Your task to perform on an android device: turn on wifi Image 0: 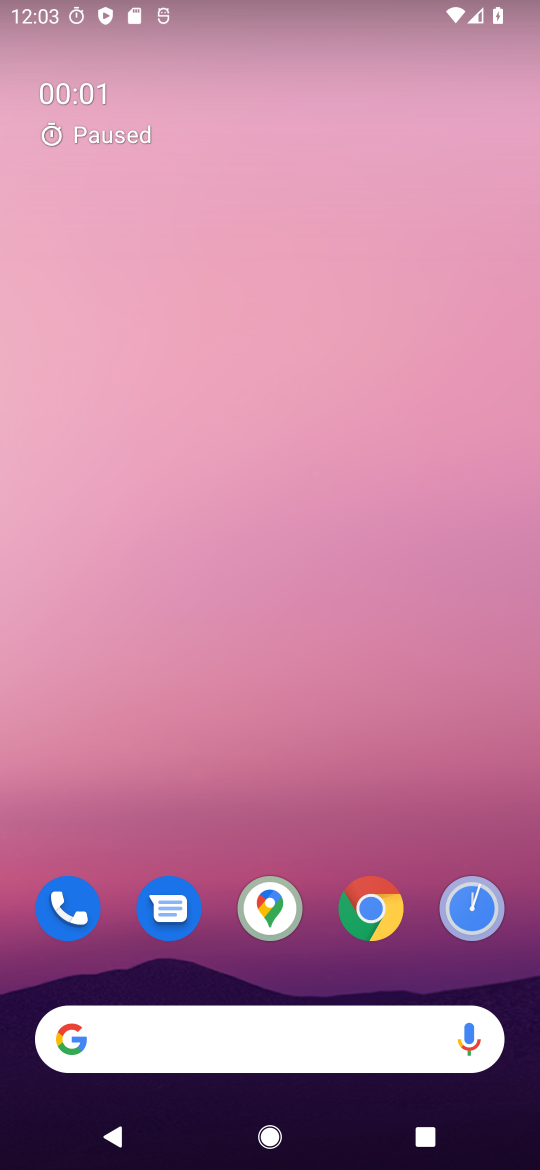
Step 0: click (475, 526)
Your task to perform on an android device: turn on wifi Image 1: 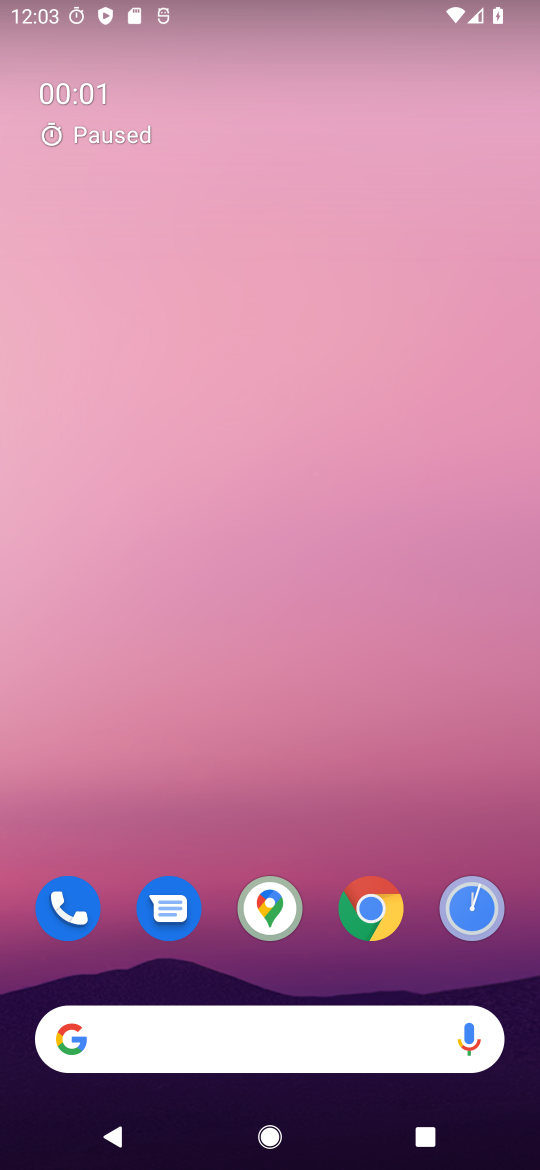
Step 1: drag from (333, 945) to (403, 97)
Your task to perform on an android device: turn on wifi Image 2: 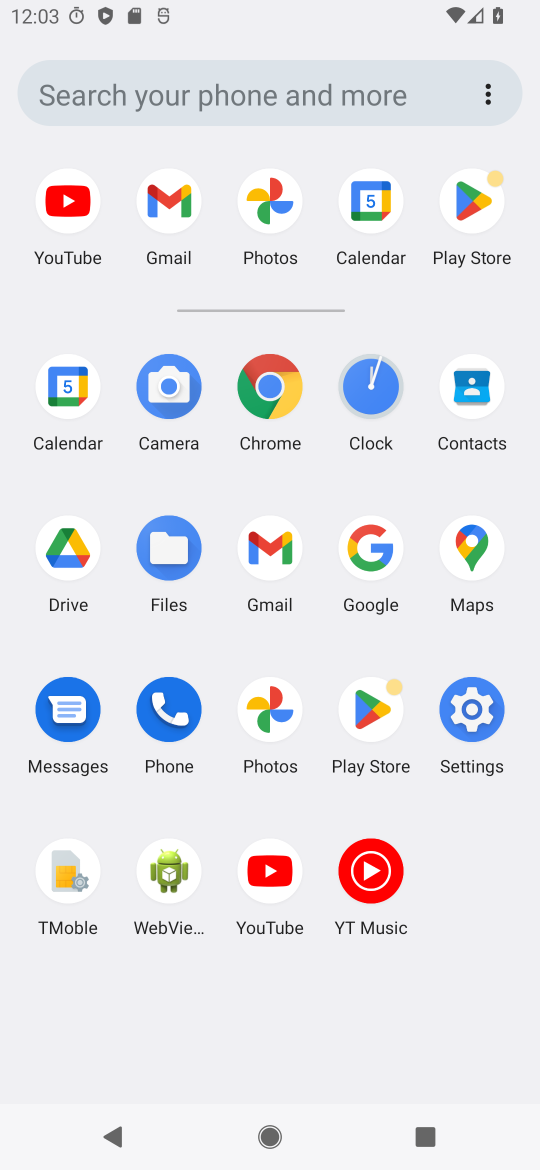
Step 2: click (446, 731)
Your task to perform on an android device: turn on wifi Image 3: 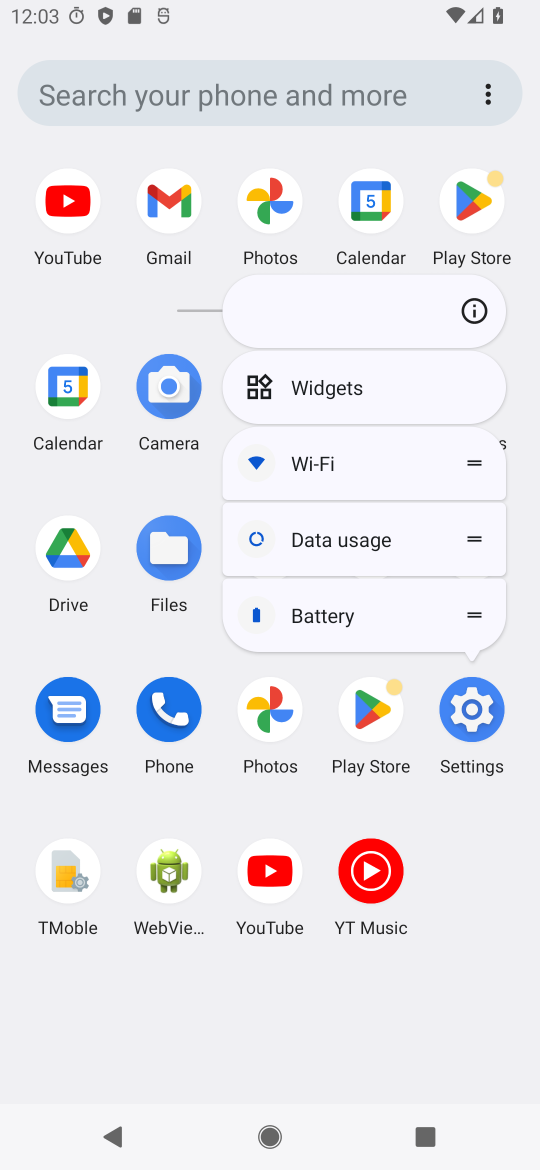
Step 3: click (458, 719)
Your task to perform on an android device: turn on wifi Image 4: 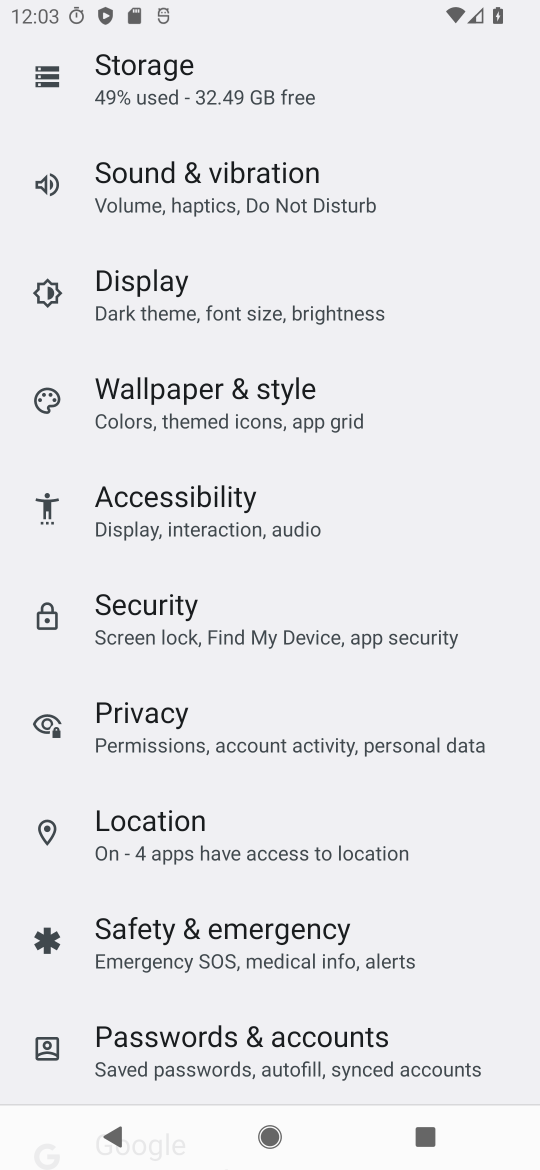
Step 4: drag from (300, 114) to (287, 782)
Your task to perform on an android device: turn on wifi Image 5: 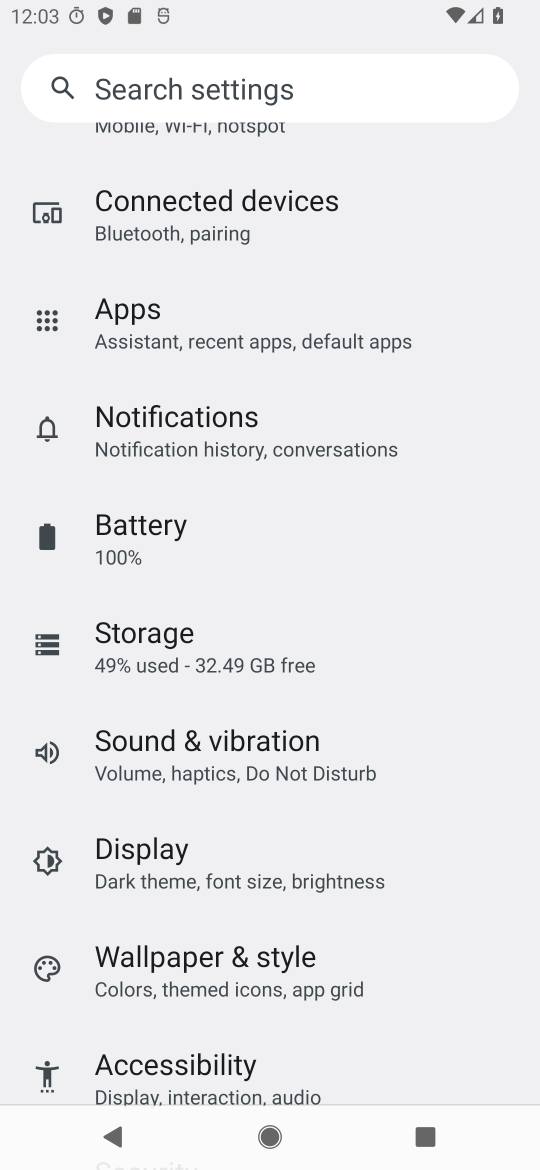
Step 5: drag from (422, 221) to (219, 907)
Your task to perform on an android device: turn on wifi Image 6: 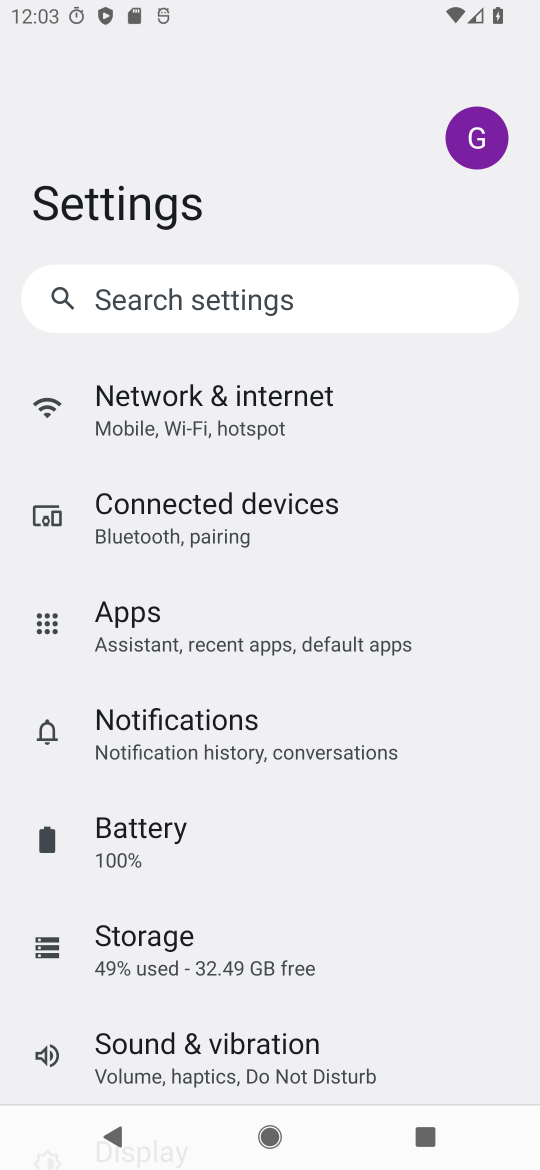
Step 6: click (144, 402)
Your task to perform on an android device: turn on wifi Image 7: 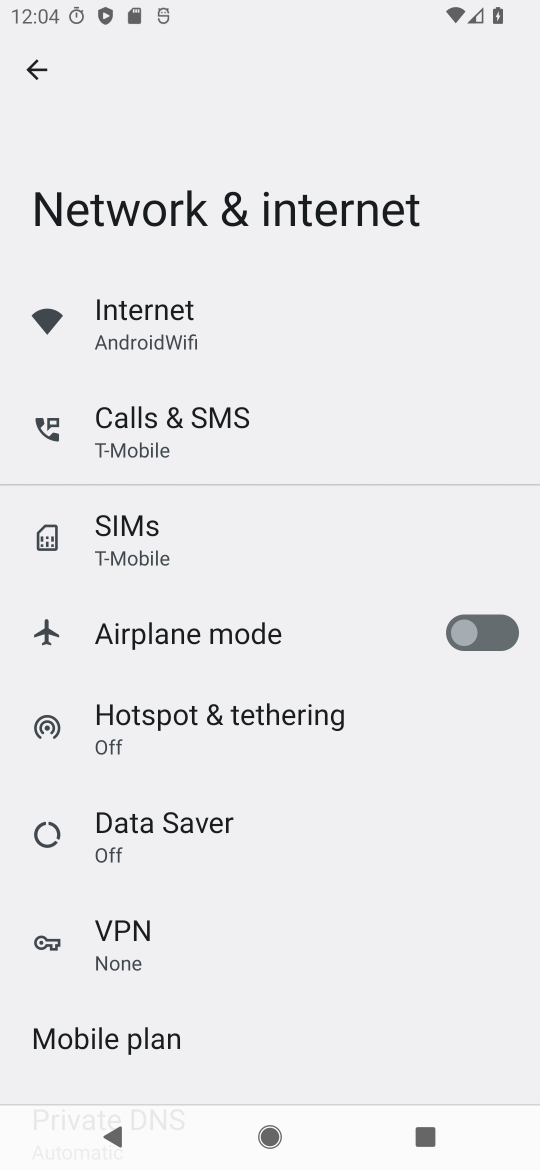
Step 7: click (154, 321)
Your task to perform on an android device: turn on wifi Image 8: 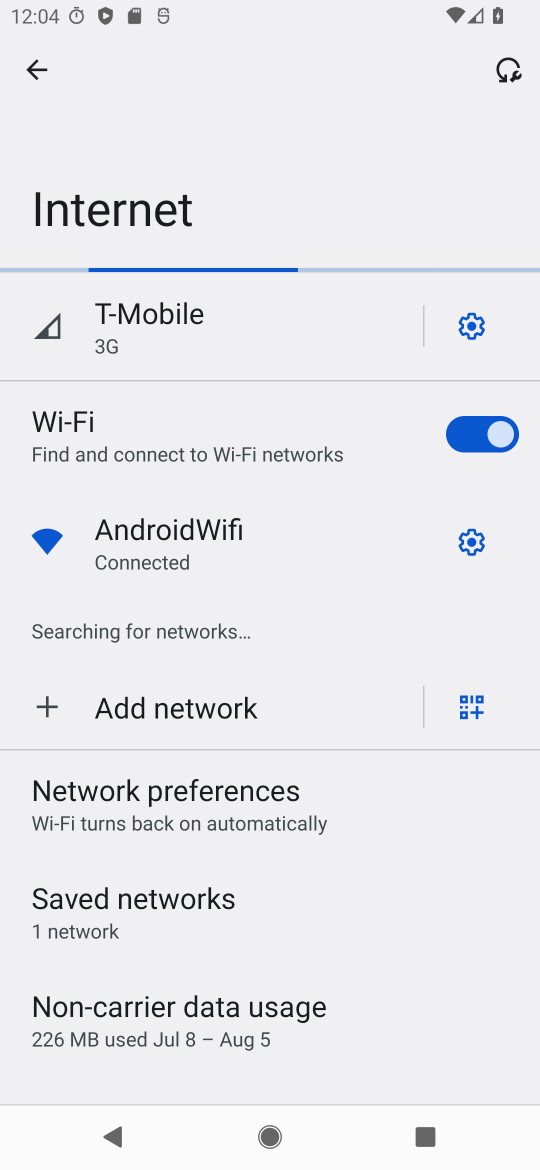
Step 8: click (470, 536)
Your task to perform on an android device: turn on wifi Image 9: 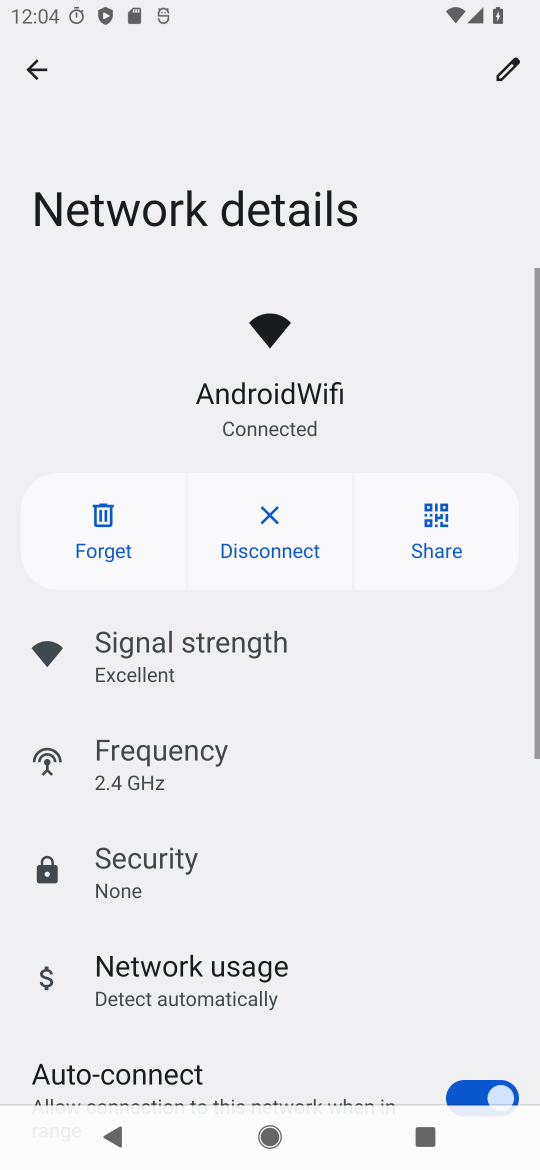
Step 9: click (24, 71)
Your task to perform on an android device: turn on wifi Image 10: 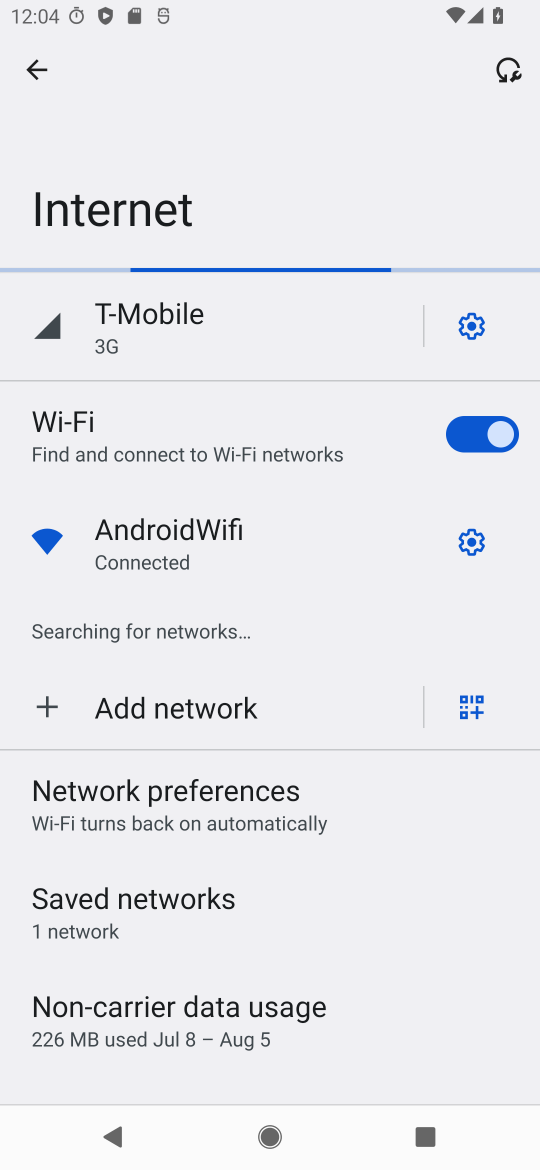
Step 10: drag from (228, 687) to (320, 899)
Your task to perform on an android device: turn on wifi Image 11: 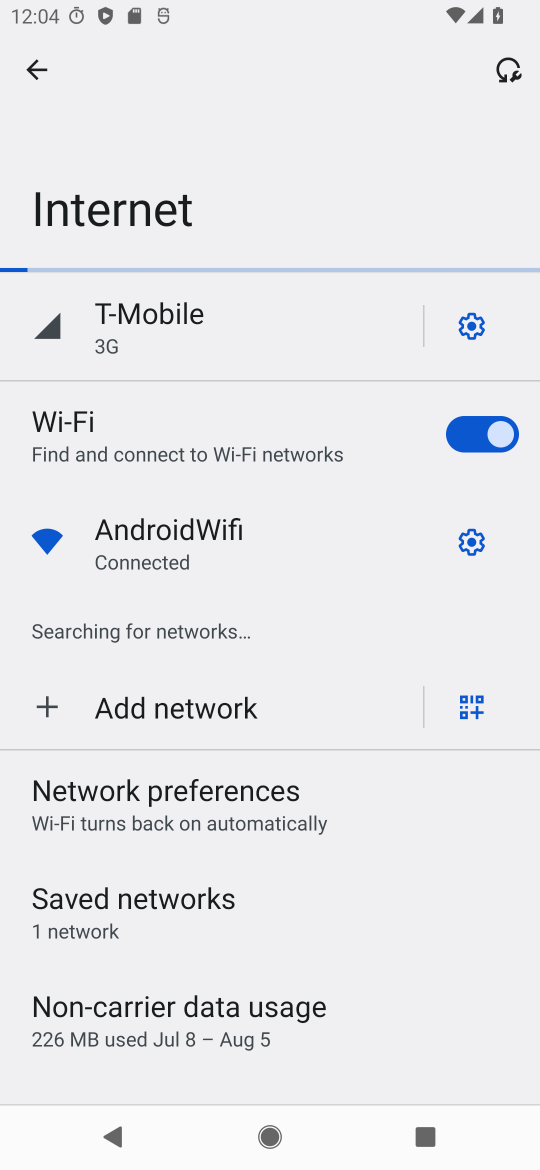
Step 11: click (134, 536)
Your task to perform on an android device: turn on wifi Image 12: 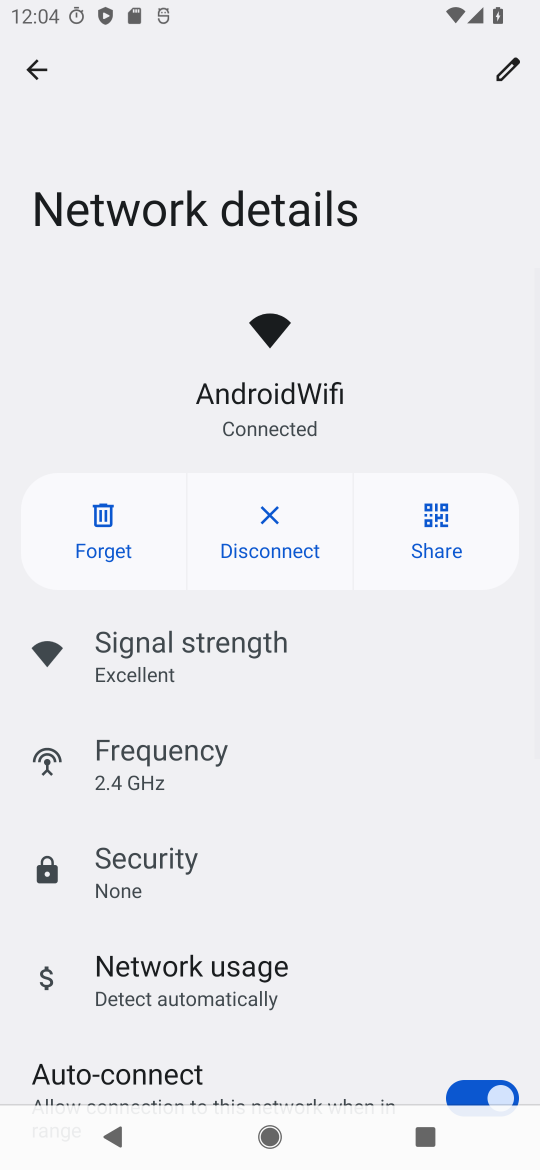
Step 12: task complete